Your task to perform on an android device: Open Google Maps and go to "Timeline" Image 0: 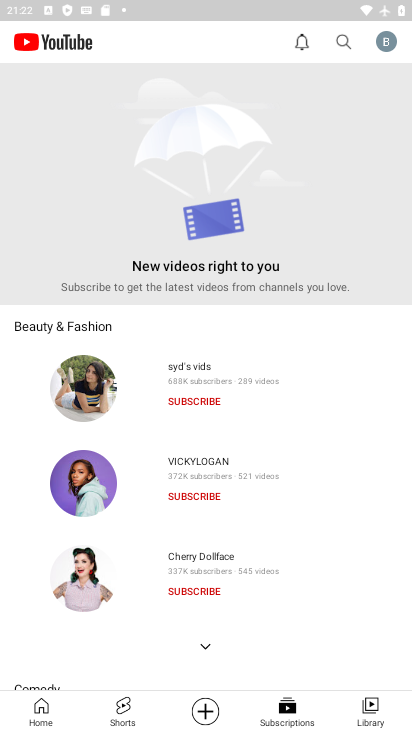
Step 0: press home button
Your task to perform on an android device: Open Google Maps and go to "Timeline" Image 1: 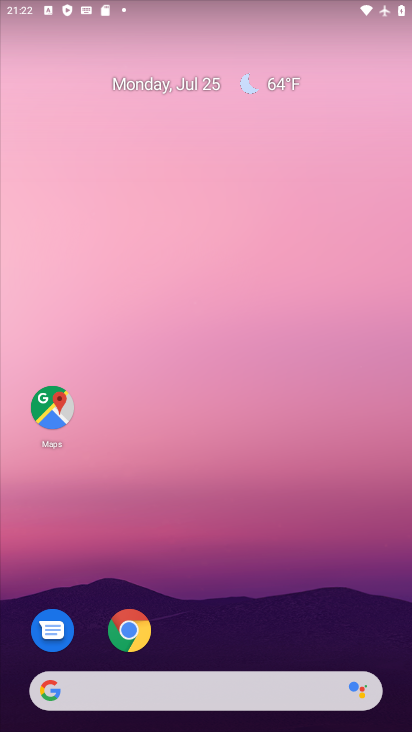
Step 1: click (52, 409)
Your task to perform on an android device: Open Google Maps and go to "Timeline" Image 2: 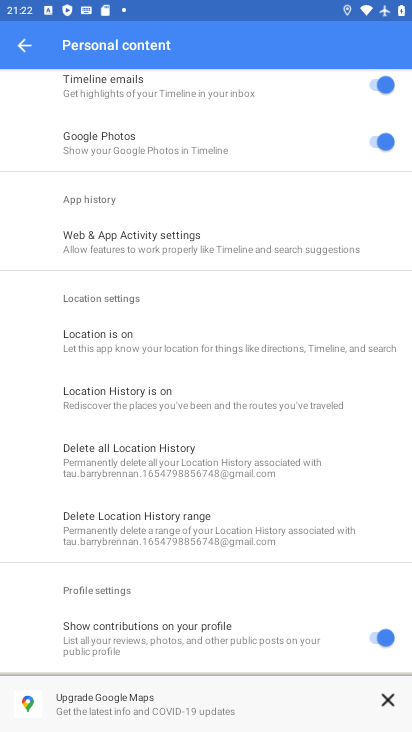
Step 2: press back button
Your task to perform on an android device: Open Google Maps and go to "Timeline" Image 3: 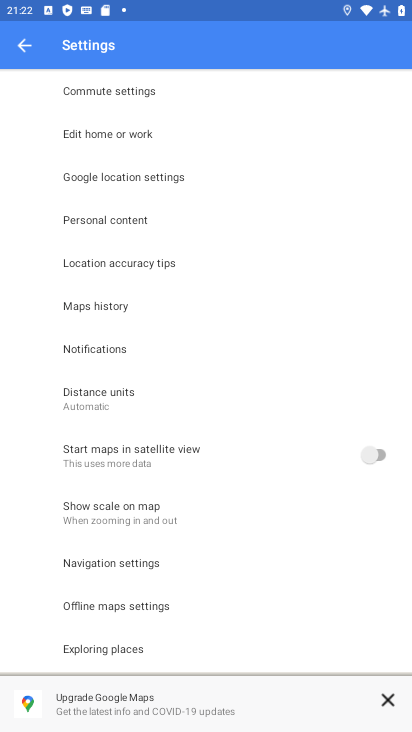
Step 3: press back button
Your task to perform on an android device: Open Google Maps and go to "Timeline" Image 4: 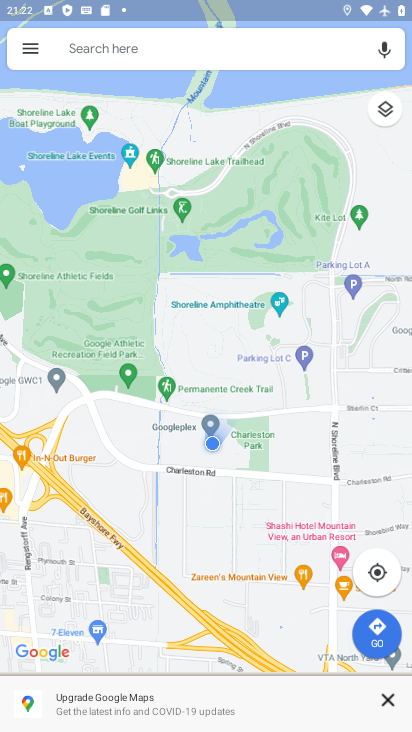
Step 4: click (29, 48)
Your task to perform on an android device: Open Google Maps and go to "Timeline" Image 5: 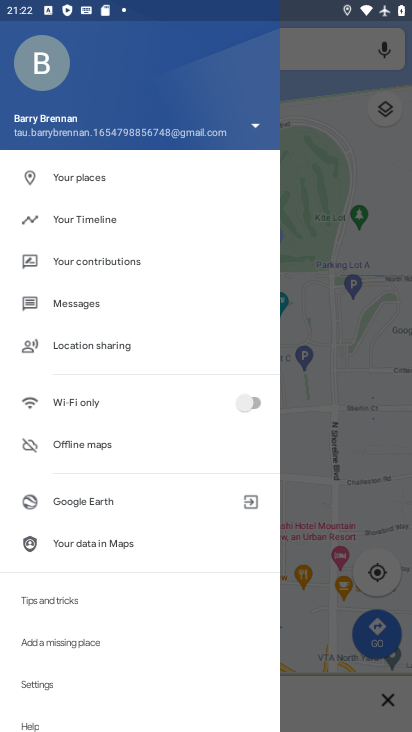
Step 5: click (94, 224)
Your task to perform on an android device: Open Google Maps and go to "Timeline" Image 6: 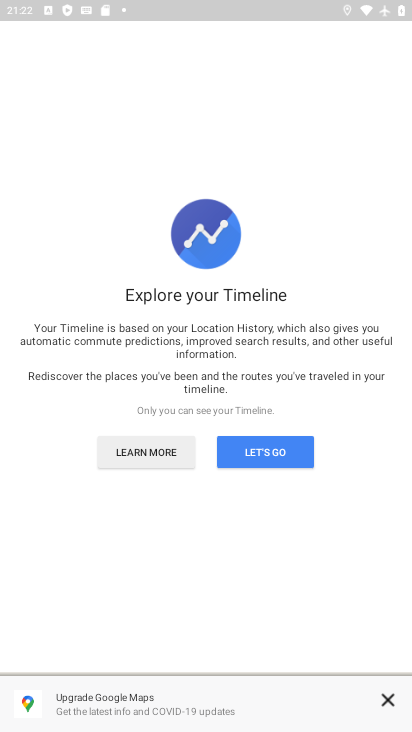
Step 6: click (267, 451)
Your task to perform on an android device: Open Google Maps and go to "Timeline" Image 7: 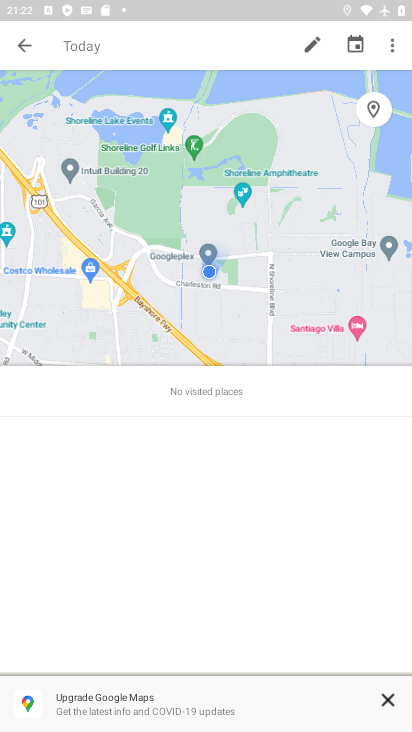
Step 7: task complete